Your task to perform on an android device: Go to network settings Image 0: 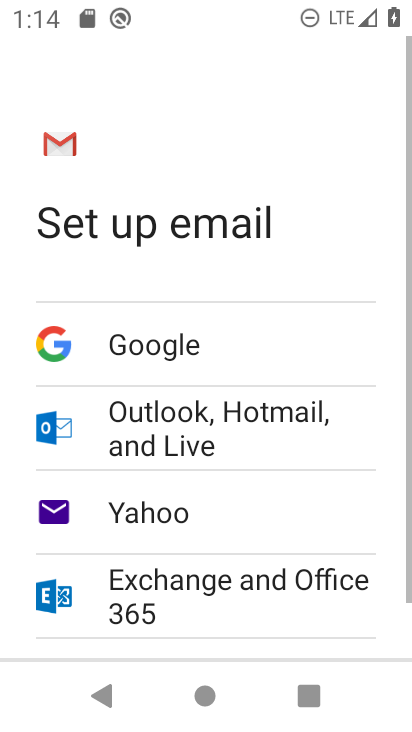
Step 0: press home button
Your task to perform on an android device: Go to network settings Image 1: 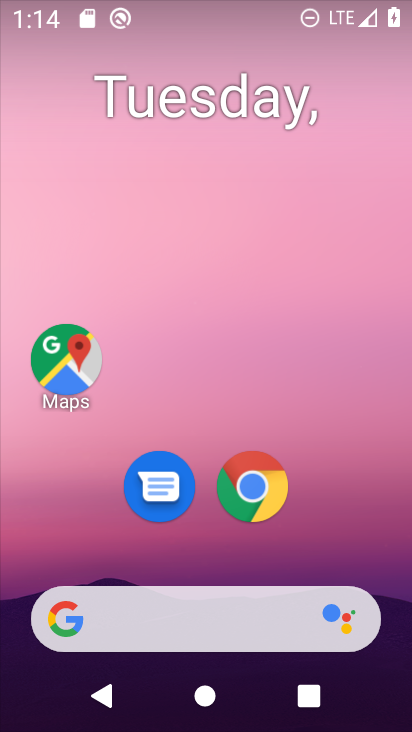
Step 1: drag from (29, 593) to (219, 189)
Your task to perform on an android device: Go to network settings Image 2: 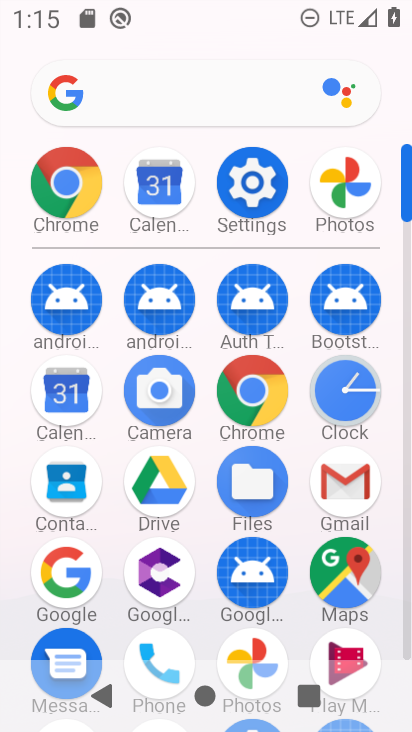
Step 2: click (254, 174)
Your task to perform on an android device: Go to network settings Image 3: 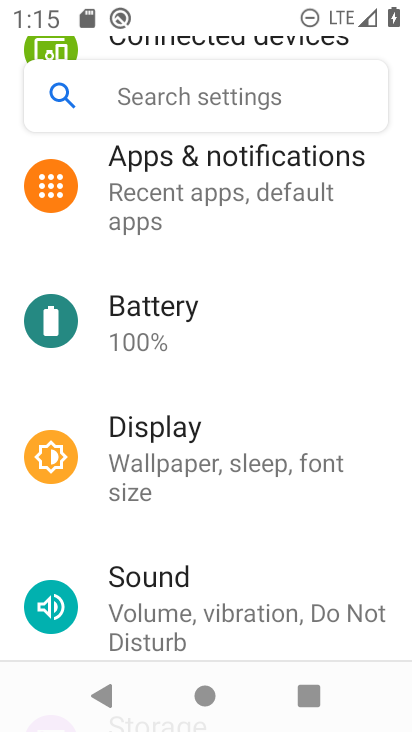
Step 3: click (226, 166)
Your task to perform on an android device: Go to network settings Image 4: 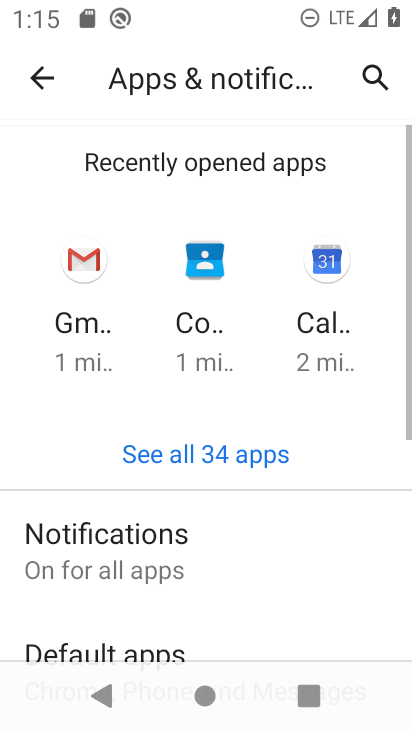
Step 4: press back button
Your task to perform on an android device: Go to network settings Image 5: 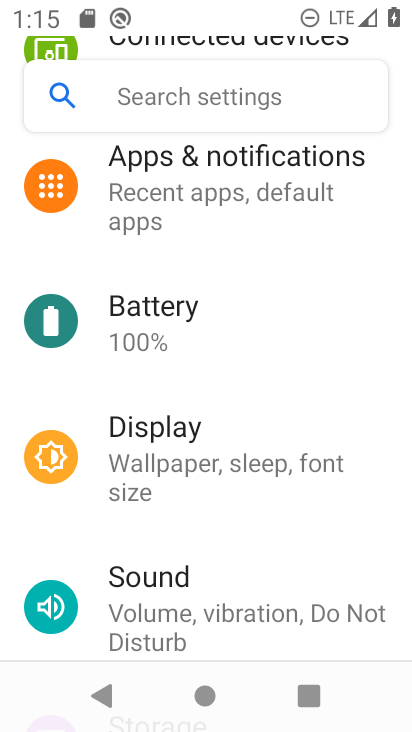
Step 5: drag from (232, 149) to (130, 578)
Your task to perform on an android device: Go to network settings Image 6: 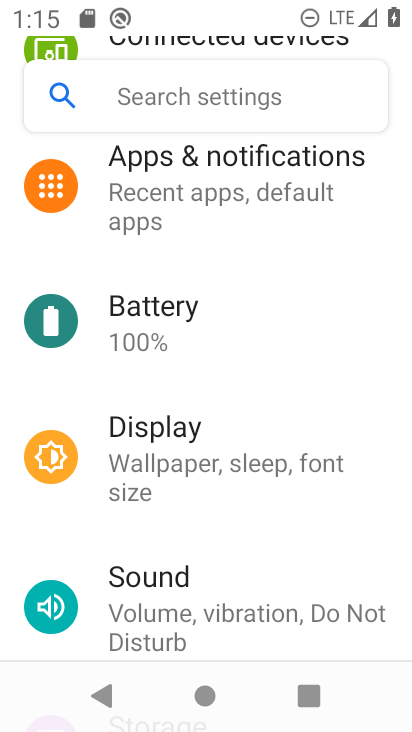
Step 6: drag from (112, 212) to (37, 577)
Your task to perform on an android device: Go to network settings Image 7: 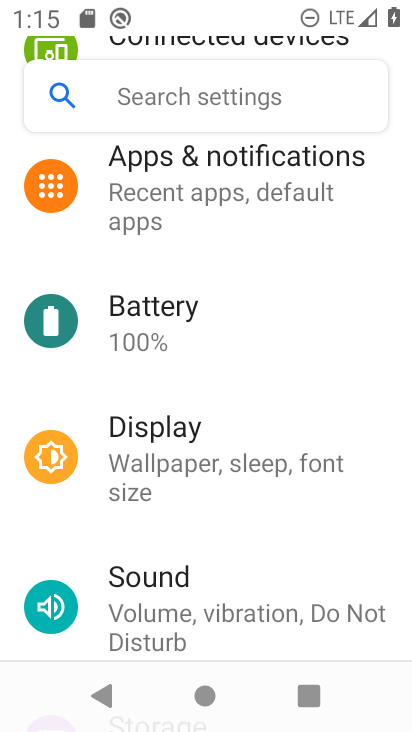
Step 7: drag from (85, 178) to (47, 644)
Your task to perform on an android device: Go to network settings Image 8: 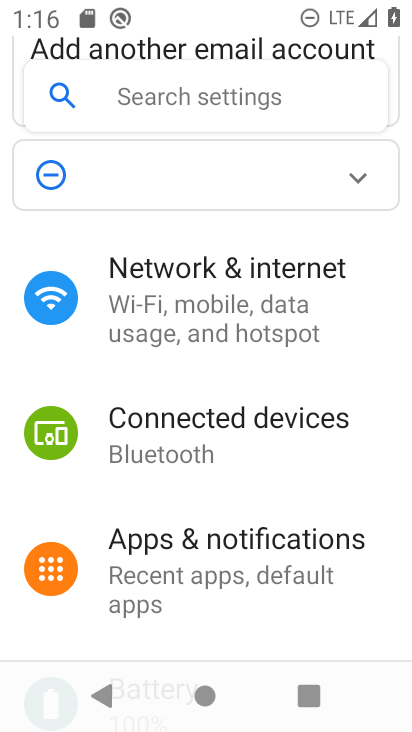
Step 8: click (188, 289)
Your task to perform on an android device: Go to network settings Image 9: 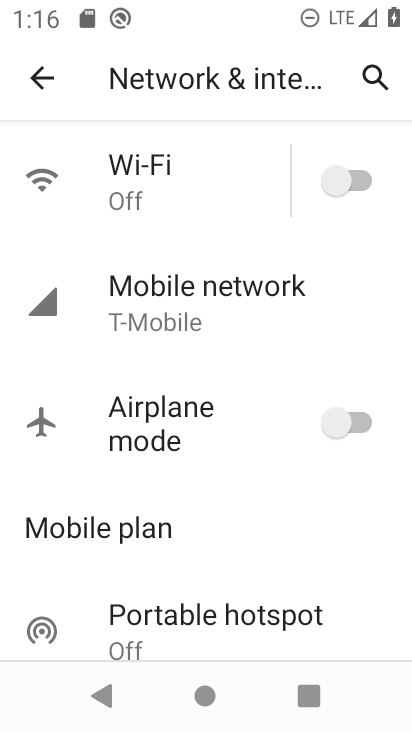
Step 9: click (220, 304)
Your task to perform on an android device: Go to network settings Image 10: 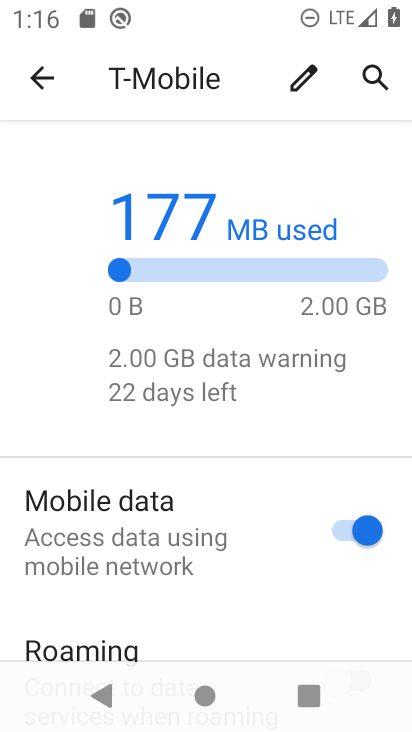
Step 10: task complete